Your task to perform on an android device: turn notification dots on Image 0: 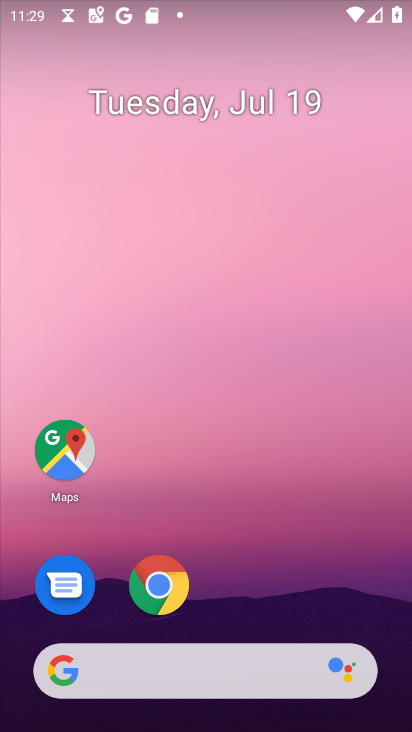
Step 0: press home button
Your task to perform on an android device: turn notification dots on Image 1: 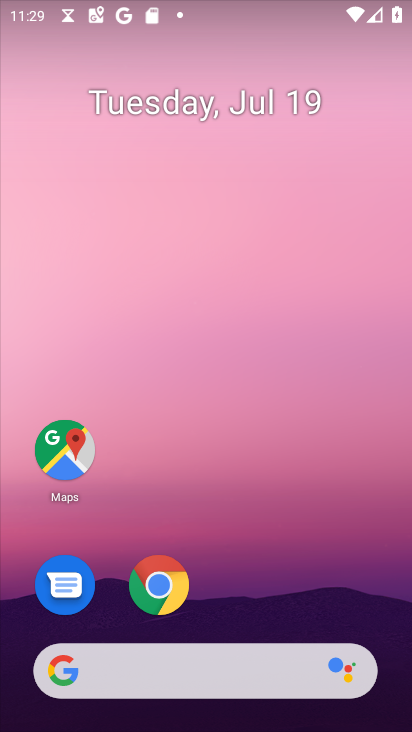
Step 1: drag from (225, 652) to (335, 243)
Your task to perform on an android device: turn notification dots on Image 2: 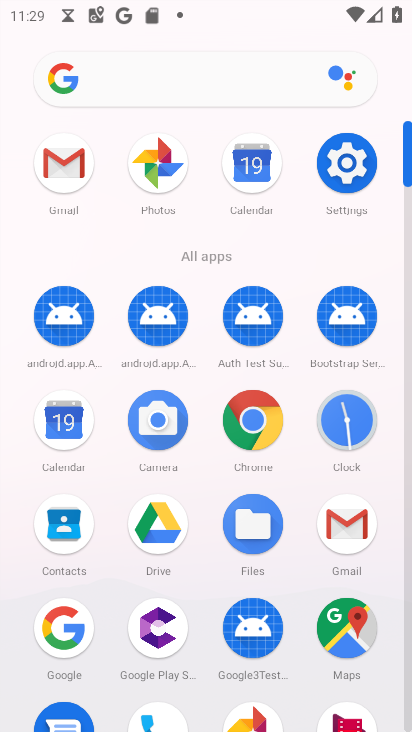
Step 2: click (356, 169)
Your task to perform on an android device: turn notification dots on Image 3: 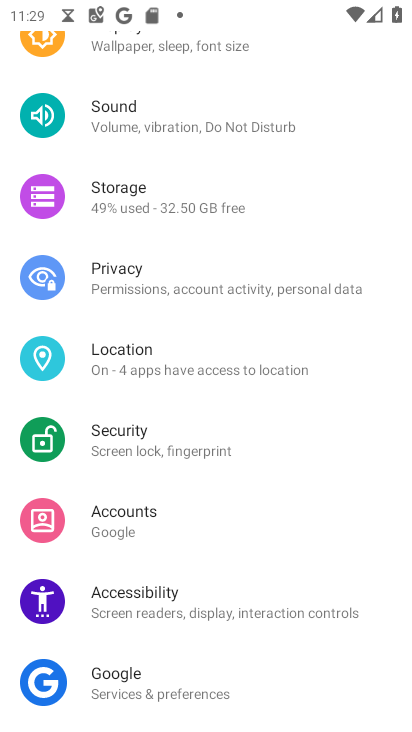
Step 3: drag from (301, 77) to (221, 624)
Your task to perform on an android device: turn notification dots on Image 4: 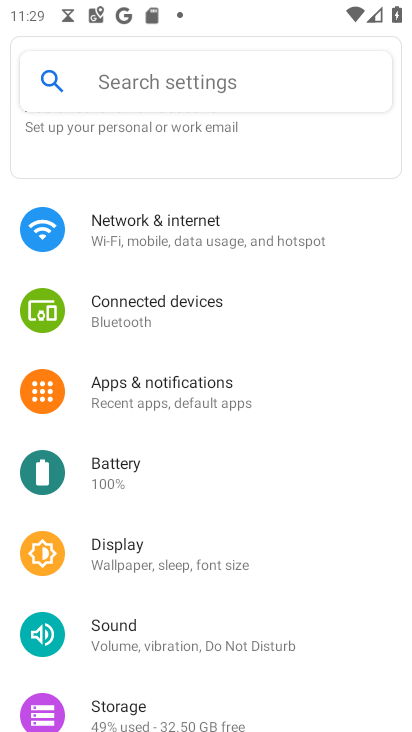
Step 4: click (181, 391)
Your task to perform on an android device: turn notification dots on Image 5: 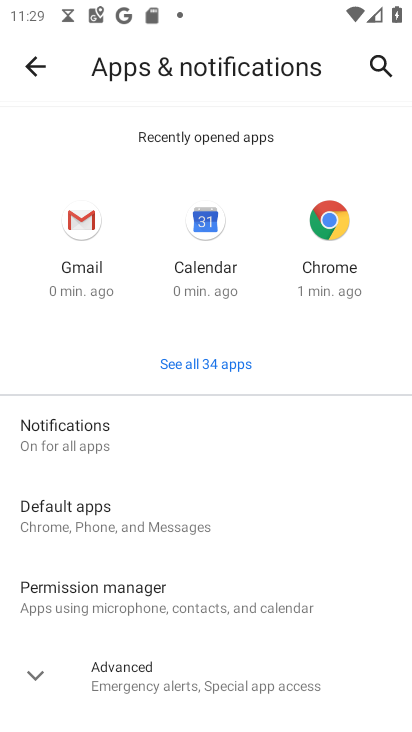
Step 5: click (93, 438)
Your task to perform on an android device: turn notification dots on Image 6: 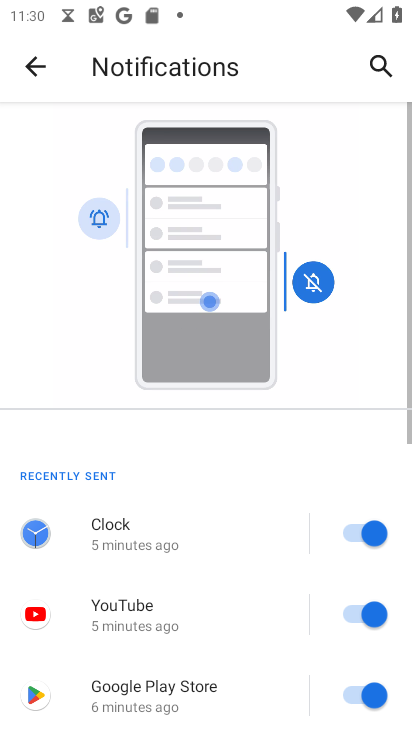
Step 6: drag from (235, 623) to (387, 91)
Your task to perform on an android device: turn notification dots on Image 7: 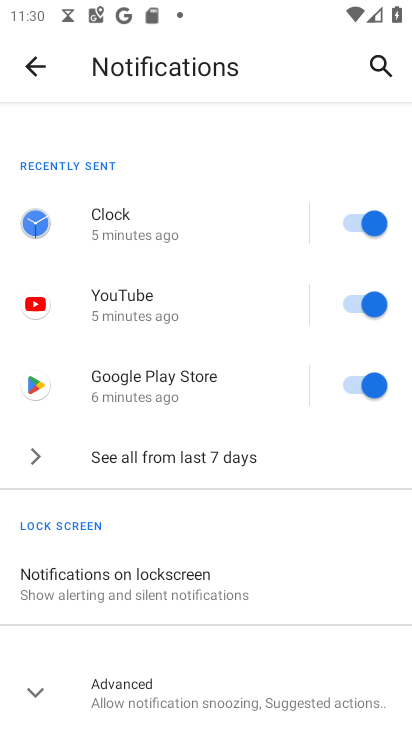
Step 7: click (155, 697)
Your task to perform on an android device: turn notification dots on Image 8: 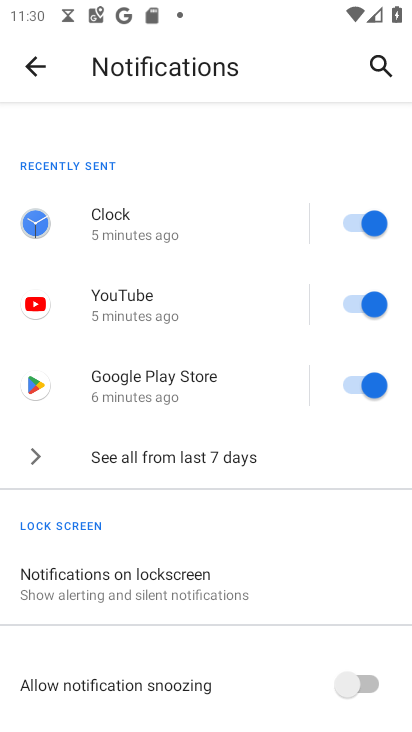
Step 8: task complete